Your task to perform on an android device: Search for a new eyeshadow Image 0: 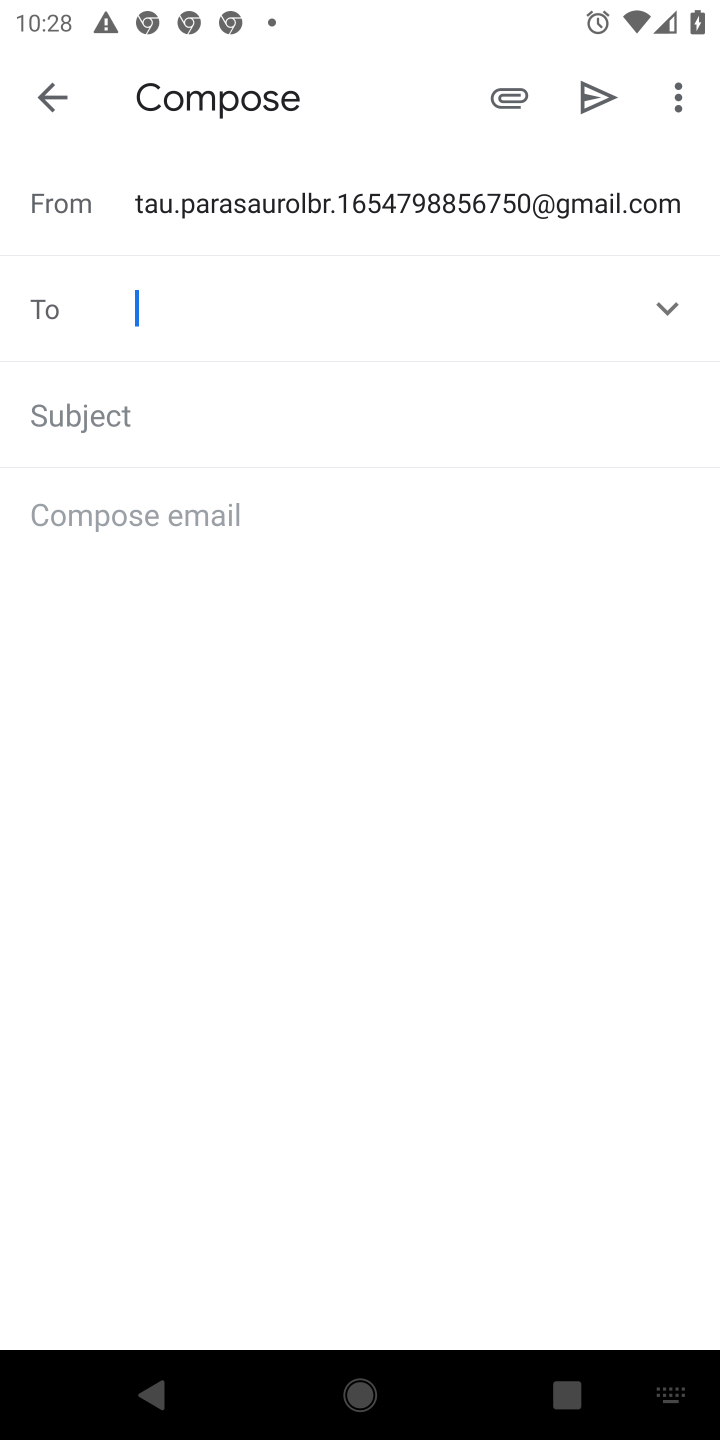
Step 0: press home button
Your task to perform on an android device: Search for a new eyeshadow Image 1: 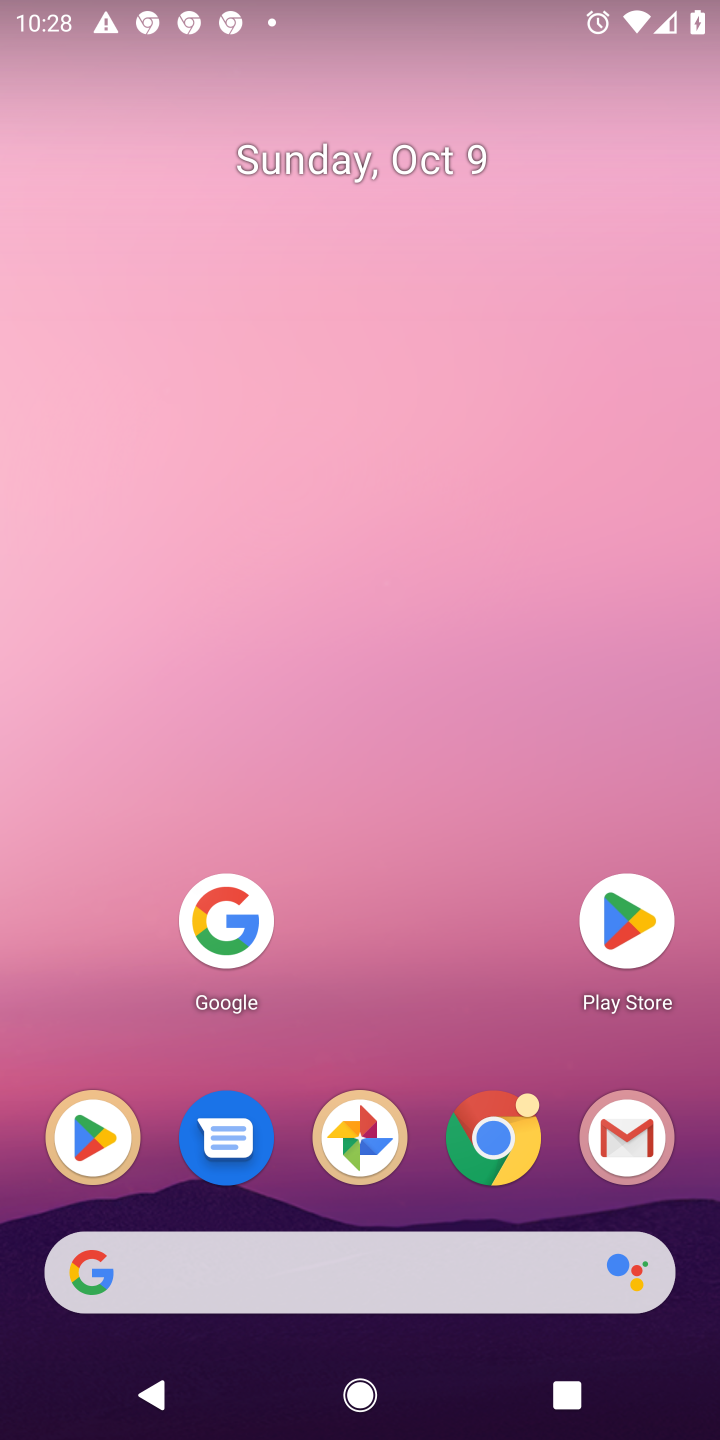
Step 1: click (205, 910)
Your task to perform on an android device: Search for a new eyeshadow Image 2: 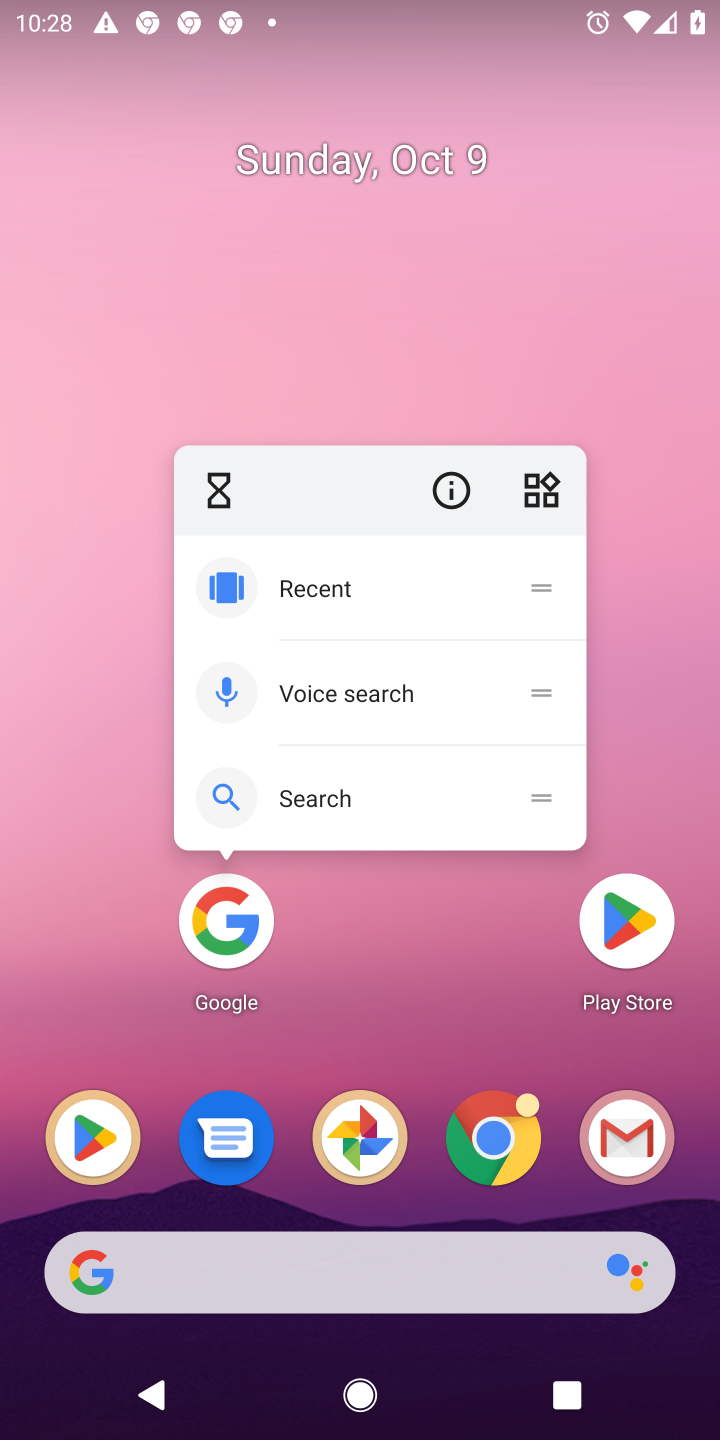
Step 2: click (216, 939)
Your task to perform on an android device: Search for a new eyeshadow Image 3: 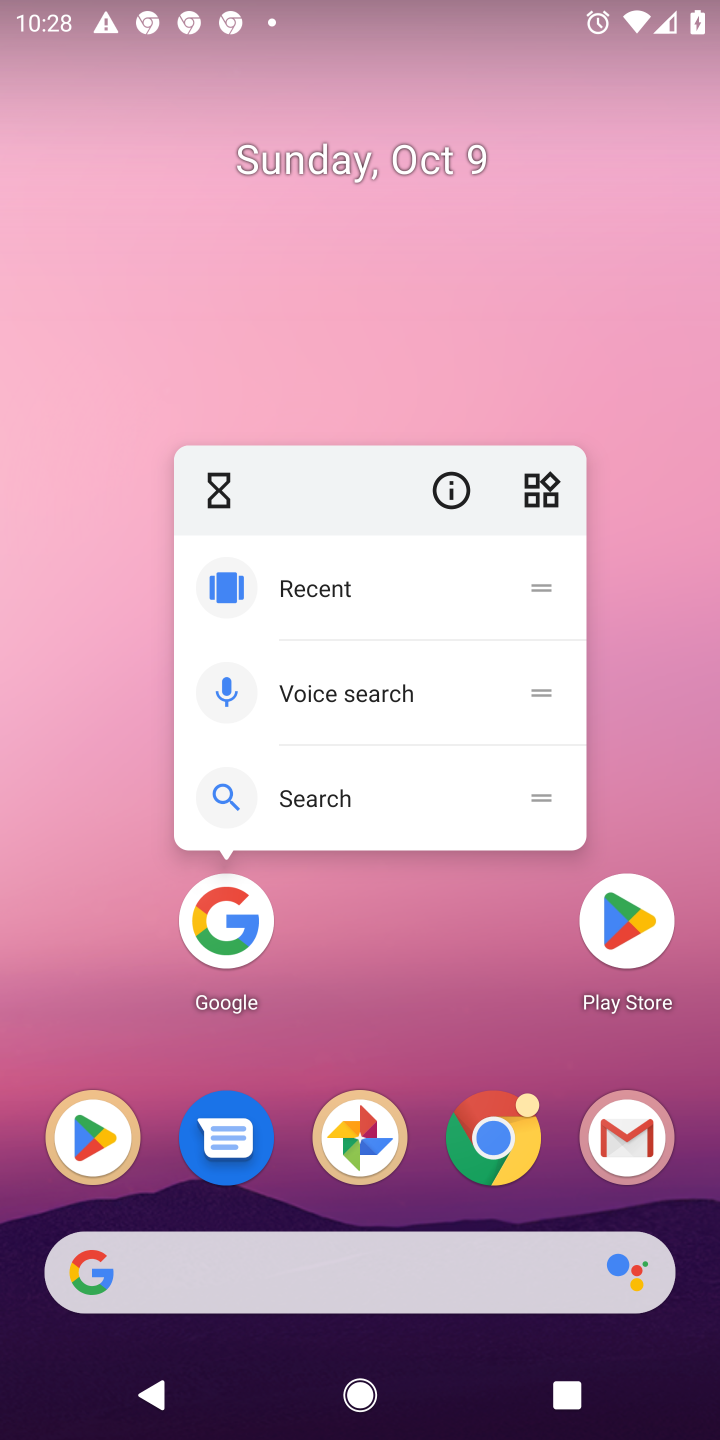
Step 3: click (216, 939)
Your task to perform on an android device: Search for a new eyeshadow Image 4: 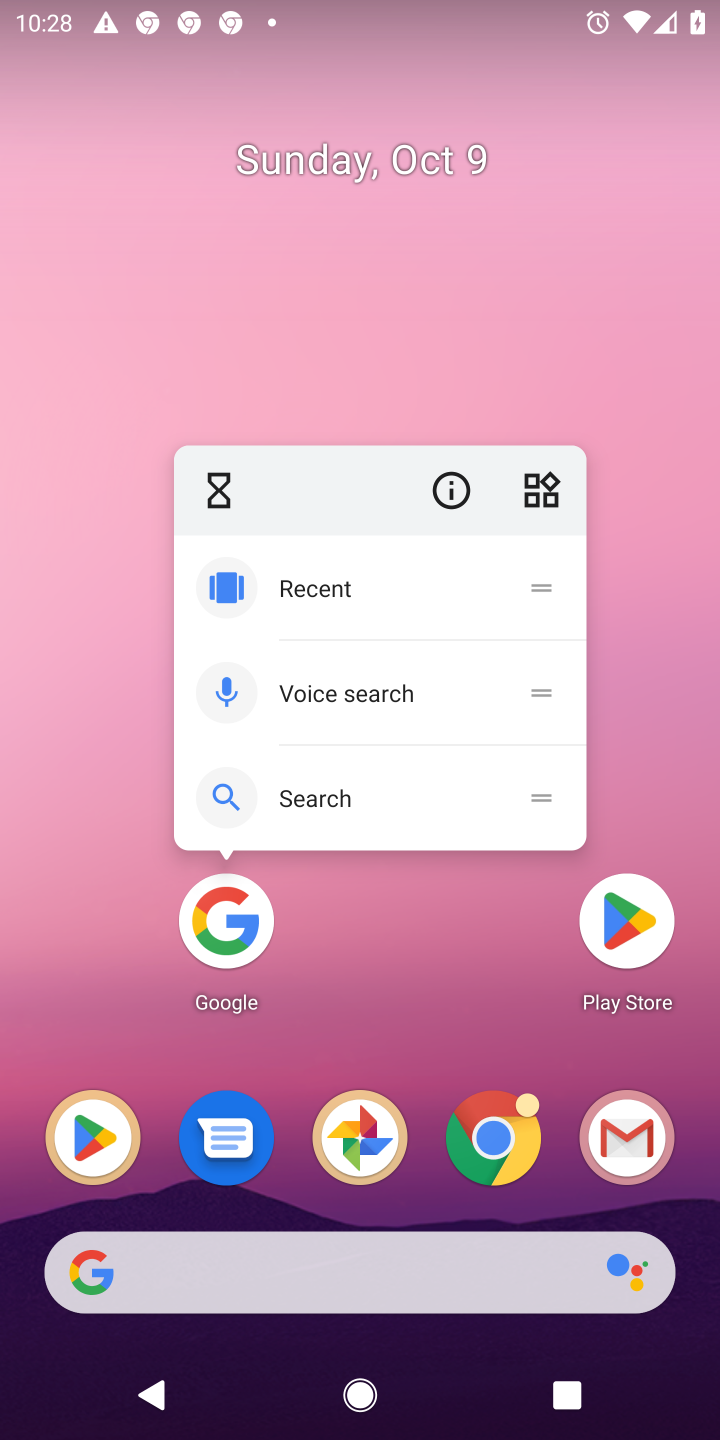
Step 4: click (223, 907)
Your task to perform on an android device: Search for a new eyeshadow Image 5: 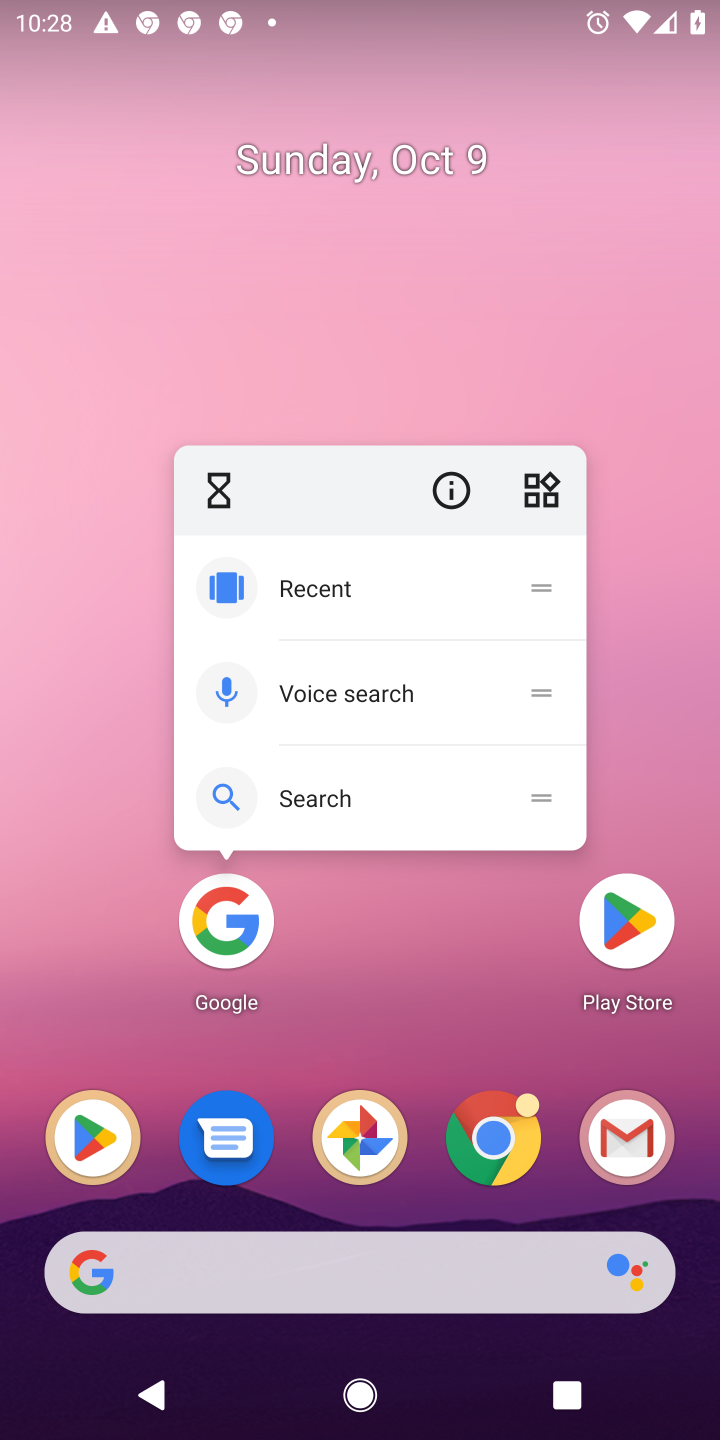
Step 5: click (228, 896)
Your task to perform on an android device: Search for a new eyeshadow Image 6: 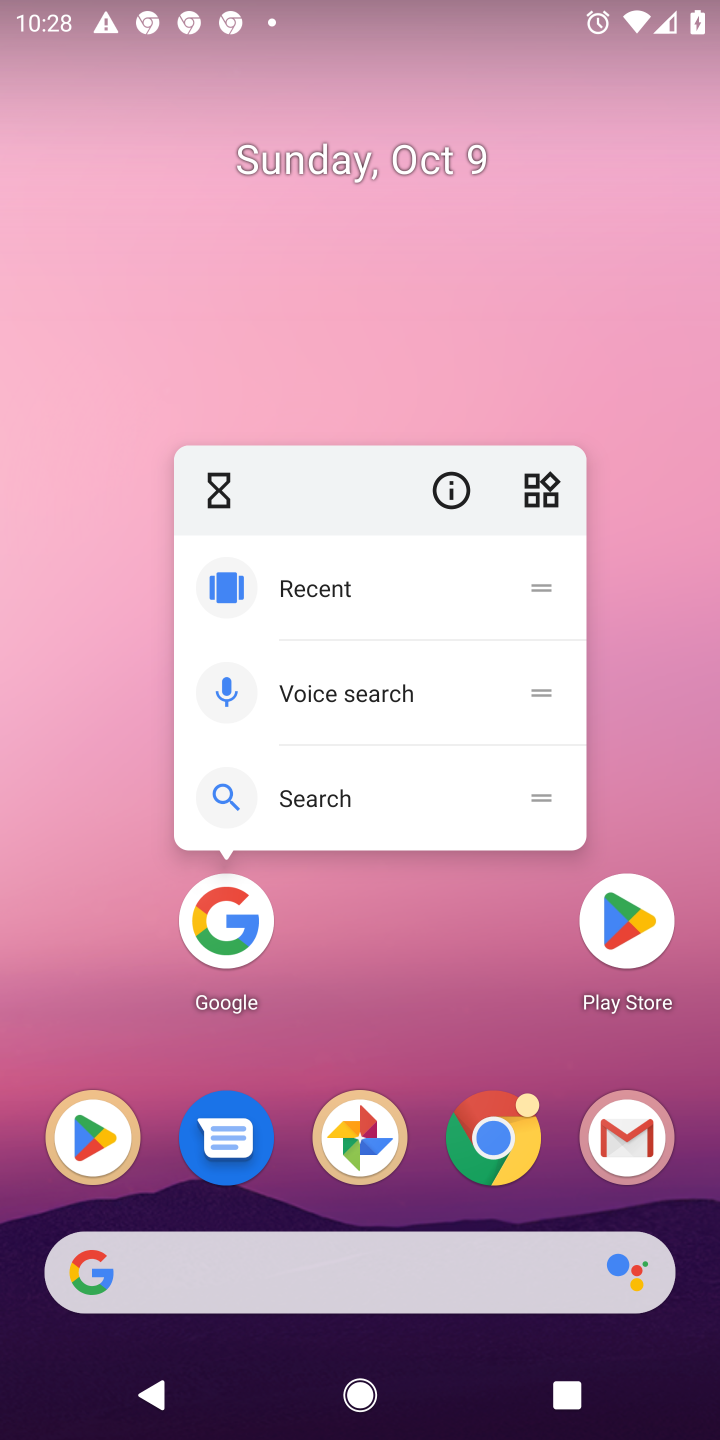
Step 6: click (228, 896)
Your task to perform on an android device: Search for a new eyeshadow Image 7: 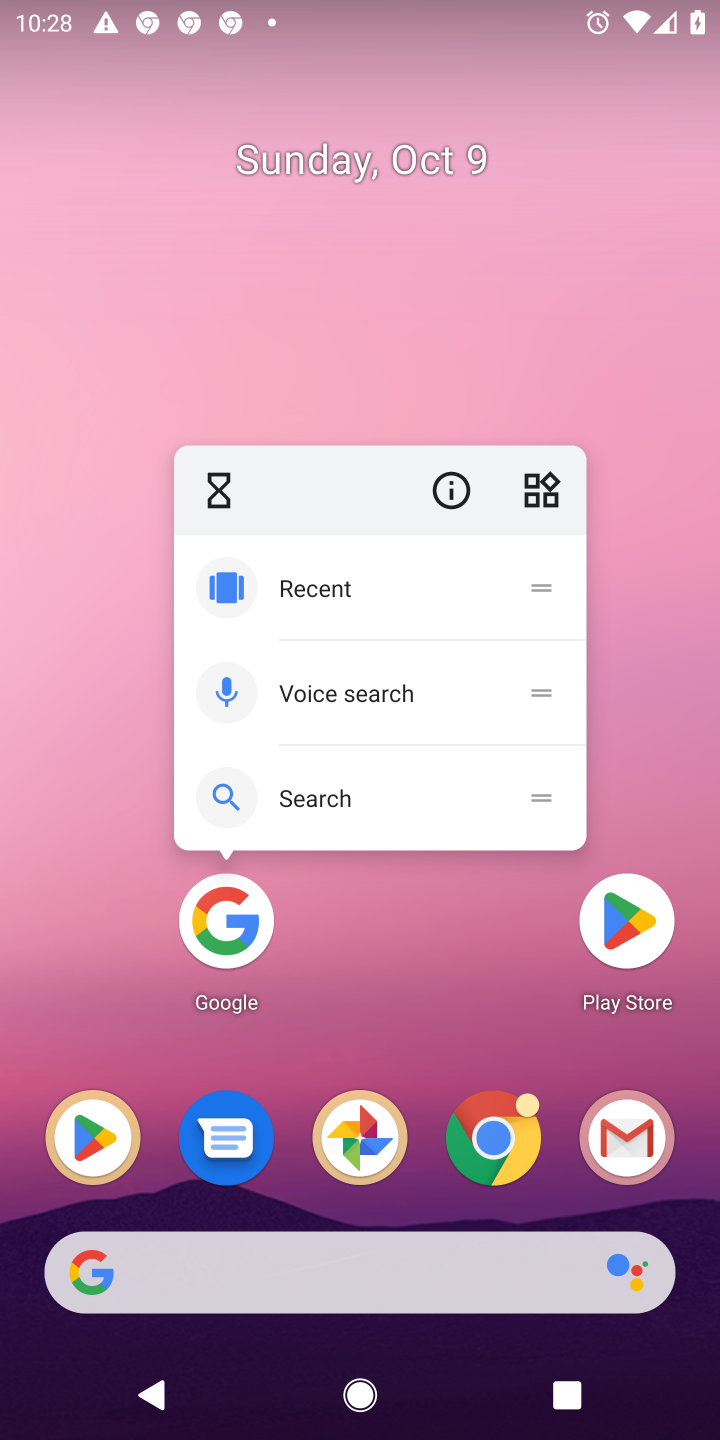
Step 7: click (212, 907)
Your task to perform on an android device: Search for a new eyeshadow Image 8: 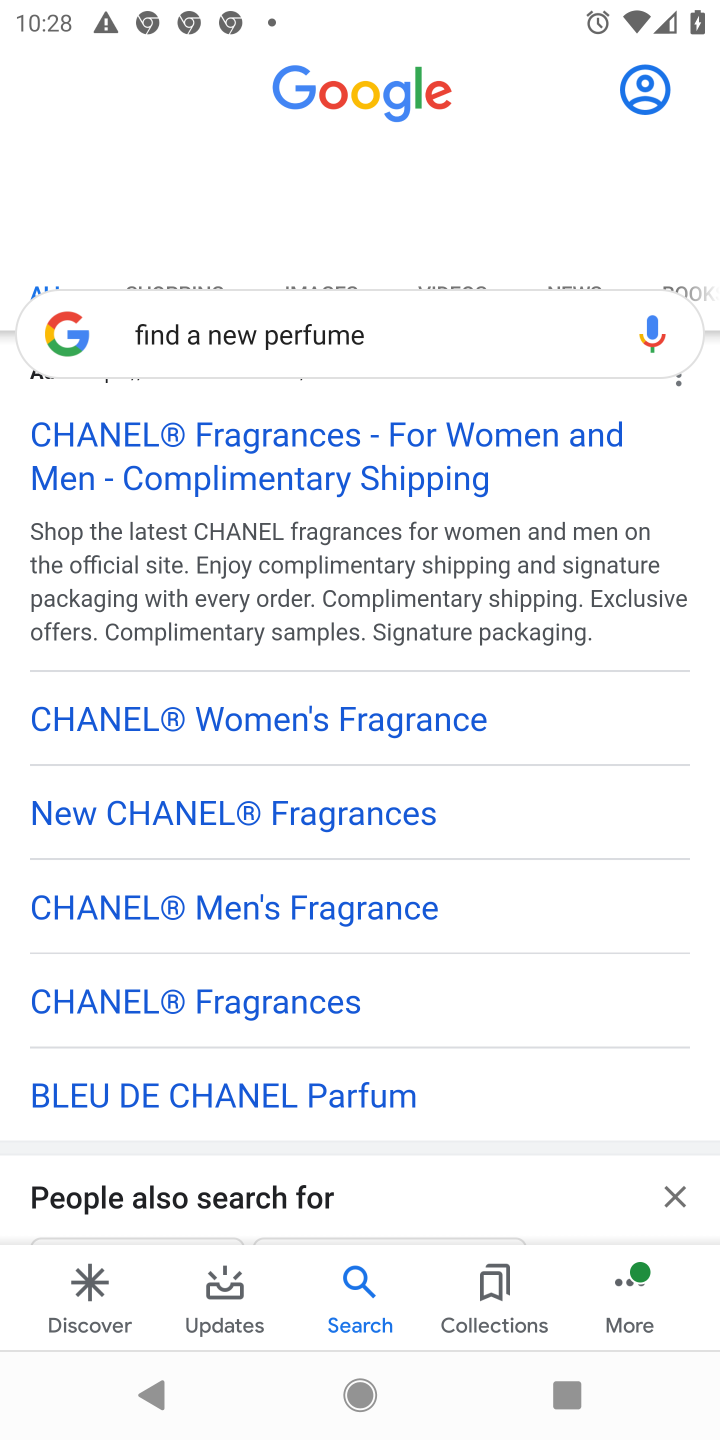
Step 8: click (383, 330)
Your task to perform on an android device: Search for a new eyeshadow Image 9: 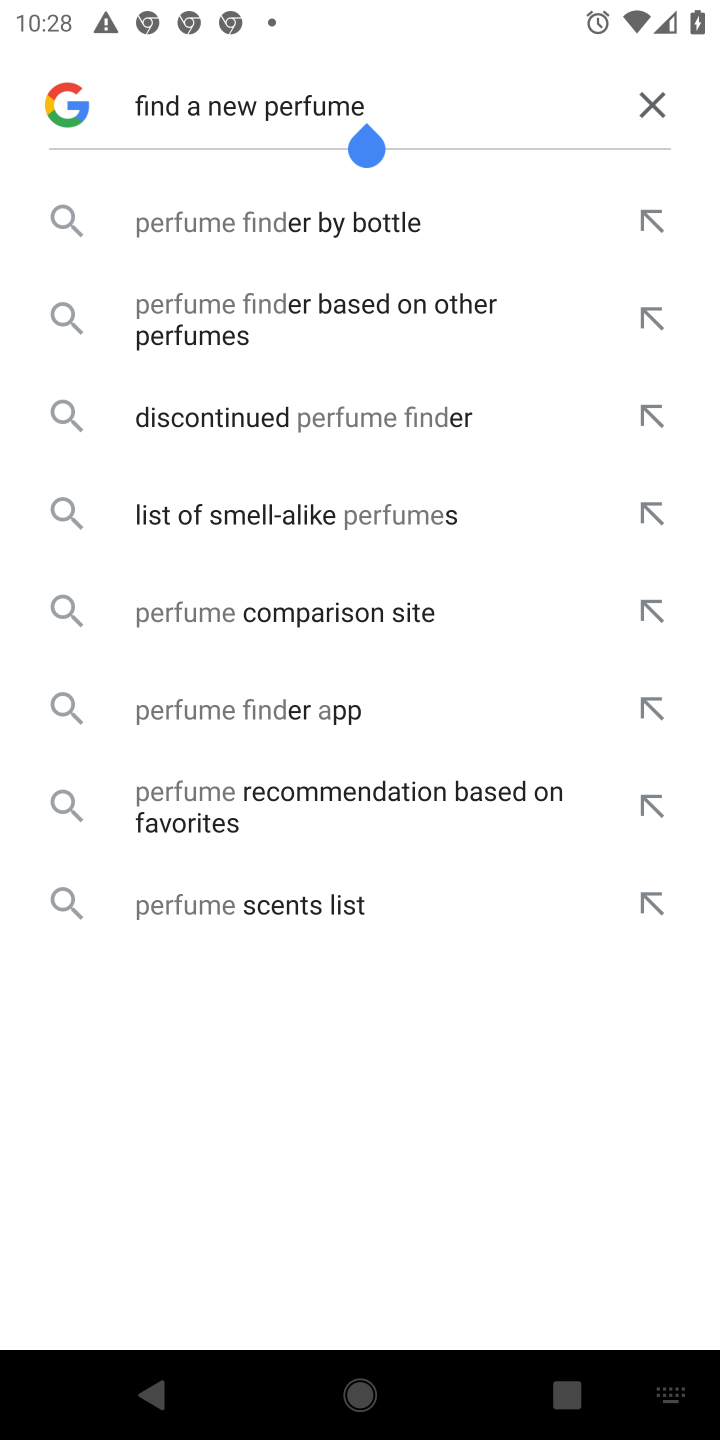
Step 9: click (643, 100)
Your task to perform on an android device: Search for a new eyeshadow Image 10: 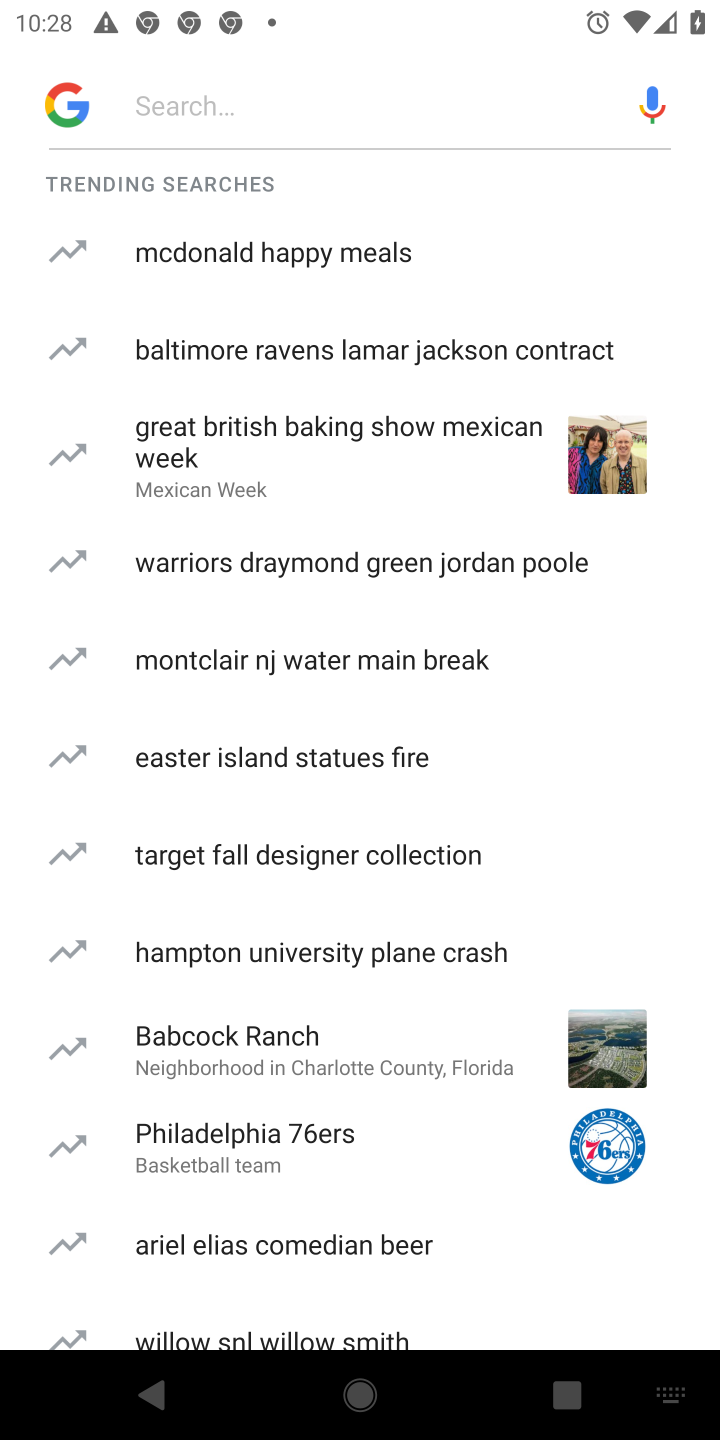
Step 10: click (310, 75)
Your task to perform on an android device: Search for a new eyeshadow Image 11: 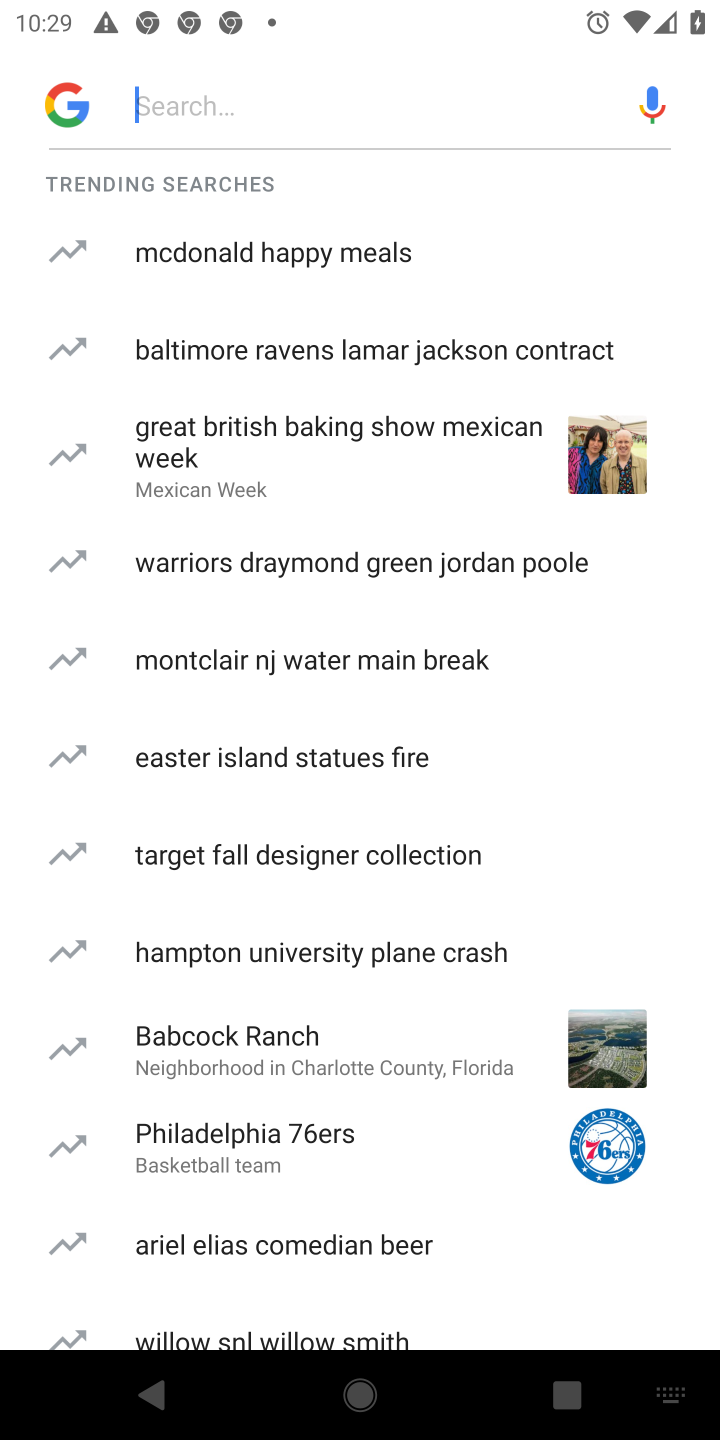
Step 11: type "Search for a new eyeshadow "
Your task to perform on an android device: Search for a new eyeshadow Image 12: 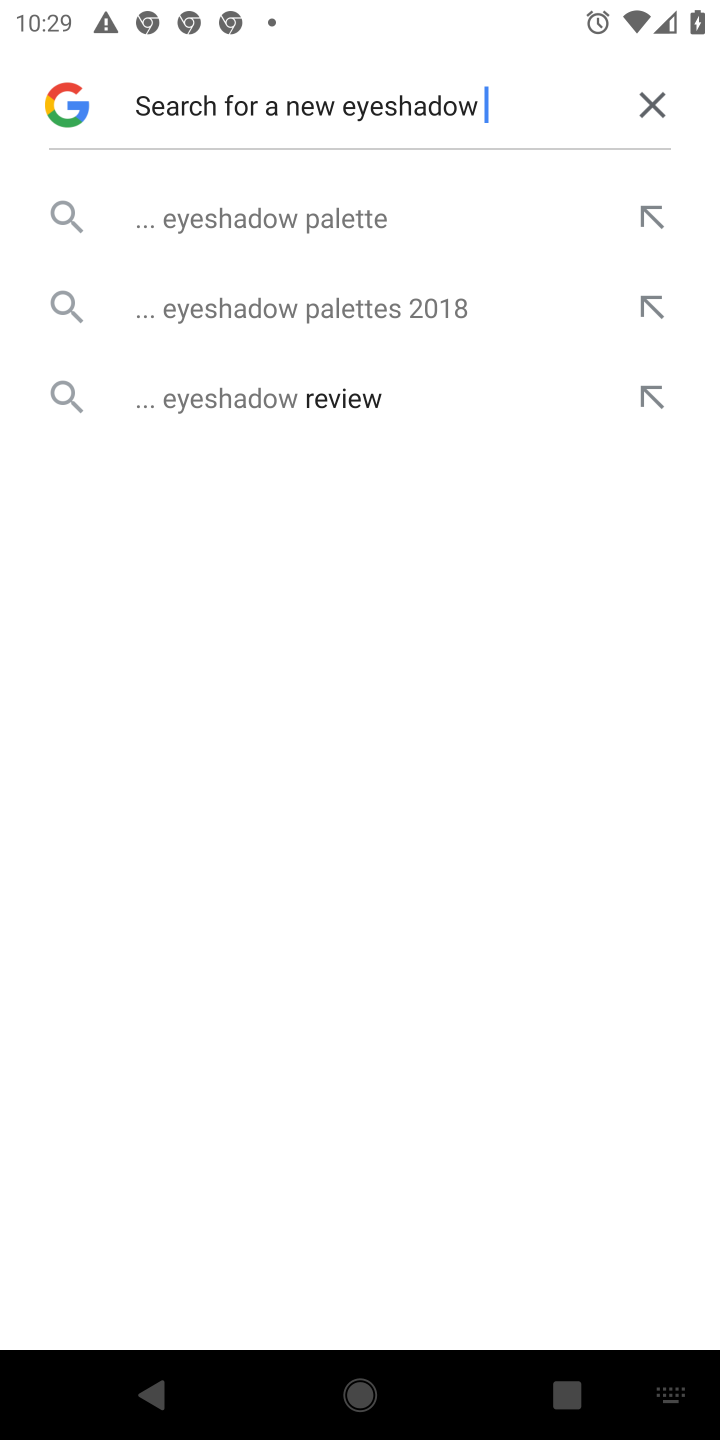
Step 12: click (405, 205)
Your task to perform on an android device: Search for a new eyeshadow Image 13: 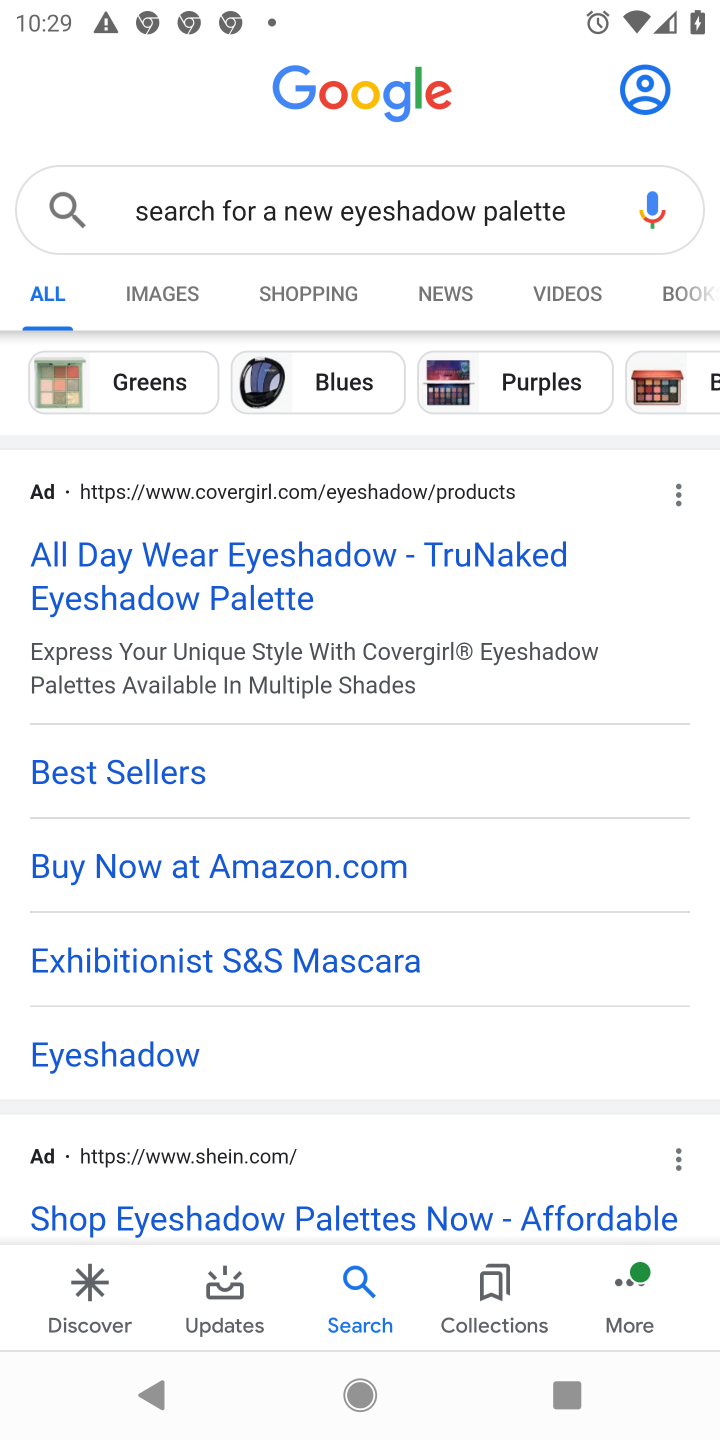
Step 13: click (283, 560)
Your task to perform on an android device: Search for a new eyeshadow Image 14: 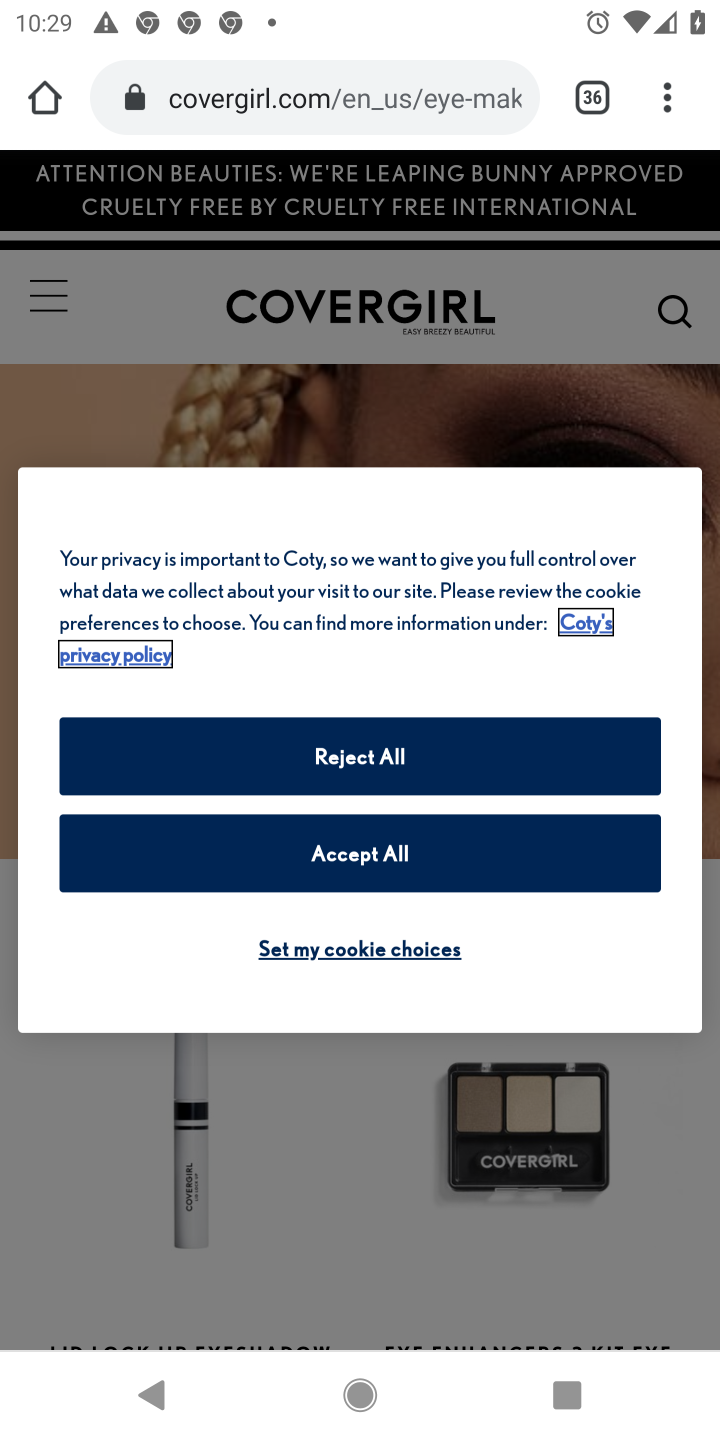
Step 14: click (427, 846)
Your task to perform on an android device: Search for a new eyeshadow Image 15: 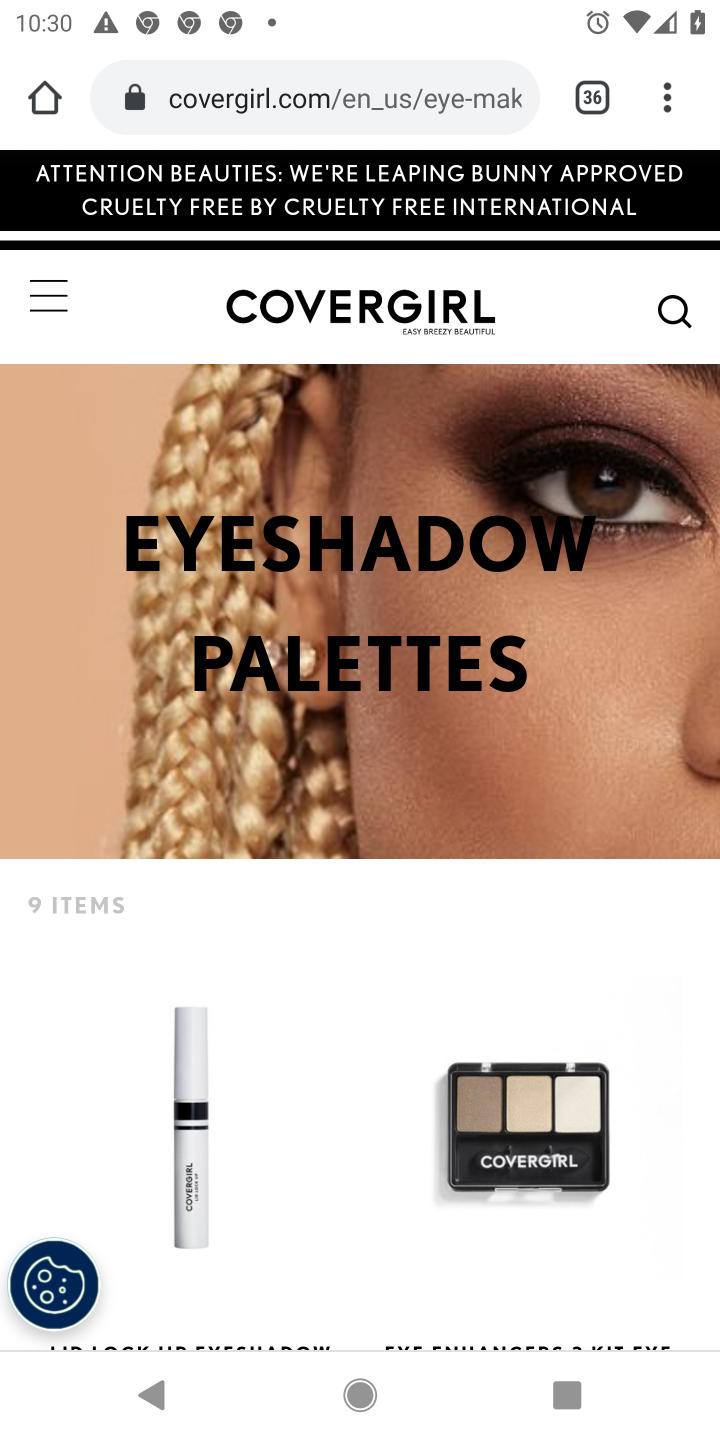
Step 15: task complete